Your task to perform on an android device: check storage Image 0: 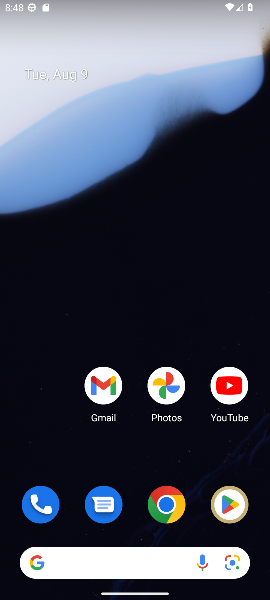
Step 0: drag from (144, 485) to (20, 4)
Your task to perform on an android device: check storage Image 1: 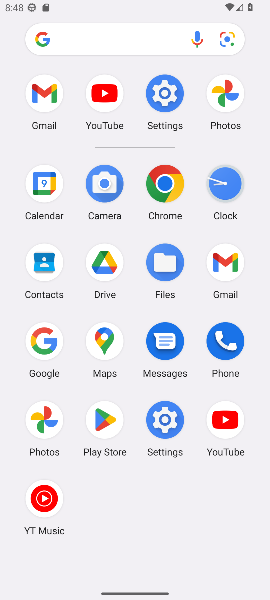
Step 1: click (163, 418)
Your task to perform on an android device: check storage Image 2: 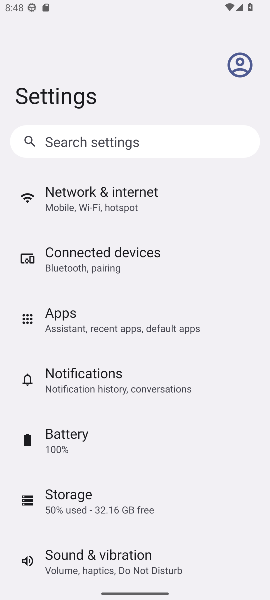
Step 2: click (69, 501)
Your task to perform on an android device: check storage Image 3: 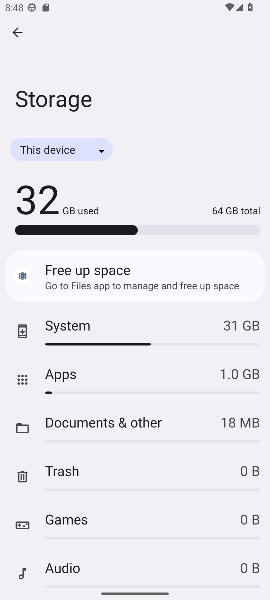
Step 3: task complete